Your task to perform on an android device: Search for Mexican restaurants on Maps Image 0: 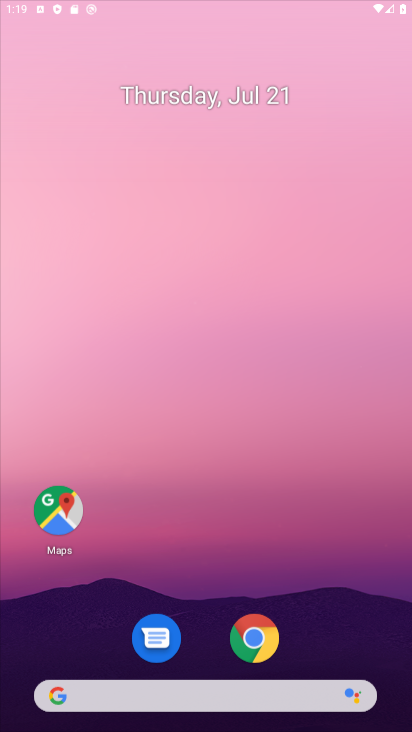
Step 0: click (137, 204)
Your task to perform on an android device: Search for Mexican restaurants on Maps Image 1: 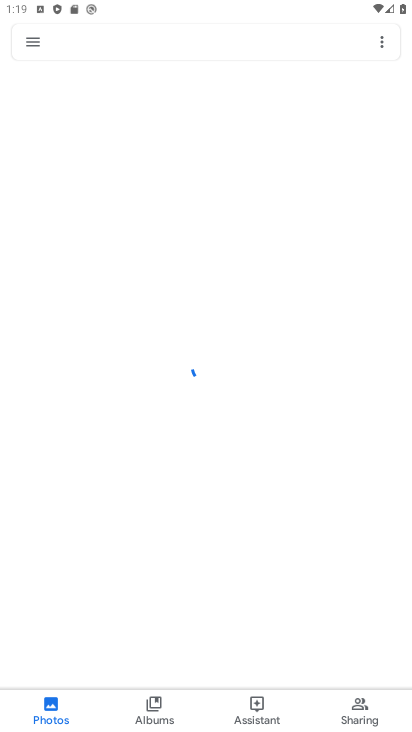
Step 1: press home button
Your task to perform on an android device: Search for Mexican restaurants on Maps Image 2: 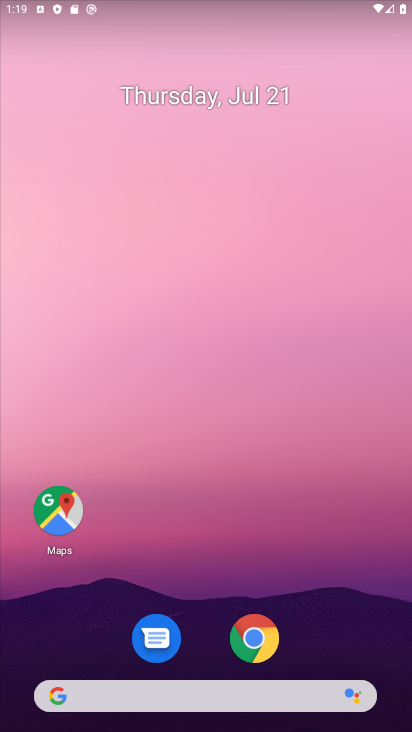
Step 2: click (73, 510)
Your task to perform on an android device: Search for Mexican restaurants on Maps Image 3: 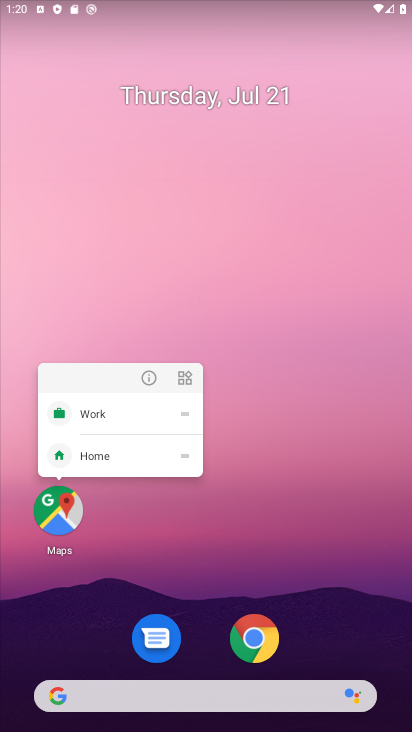
Step 3: click (73, 510)
Your task to perform on an android device: Search for Mexican restaurants on Maps Image 4: 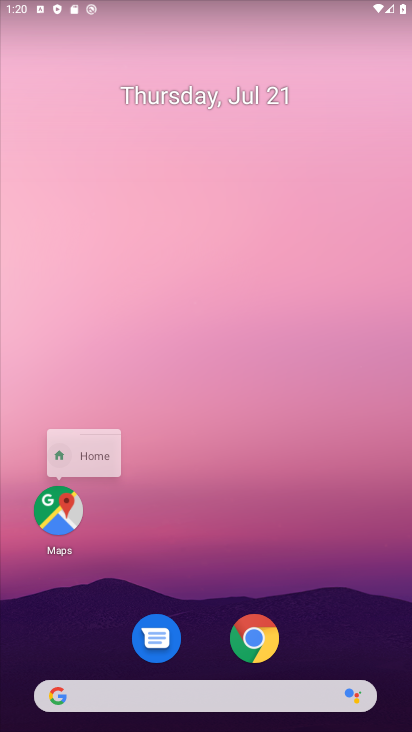
Step 4: click (73, 510)
Your task to perform on an android device: Search for Mexican restaurants on Maps Image 5: 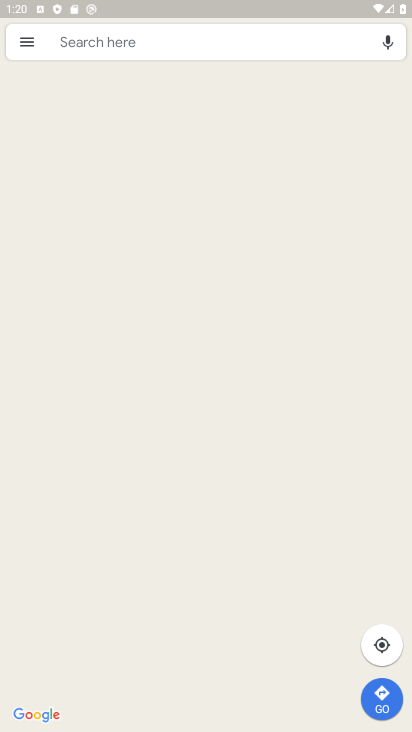
Step 5: click (161, 46)
Your task to perform on an android device: Search for Mexican restaurants on Maps Image 6: 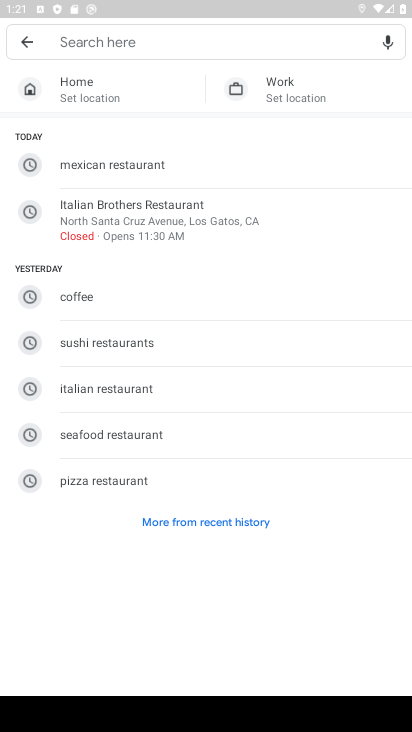
Step 6: type "mexican"
Your task to perform on an android device: Search for Mexican restaurants on Maps Image 7: 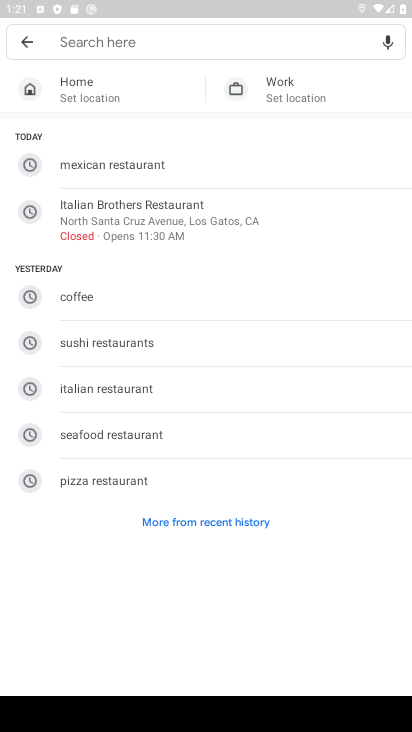
Step 7: click (183, 174)
Your task to perform on an android device: Search for Mexican restaurants on Maps Image 8: 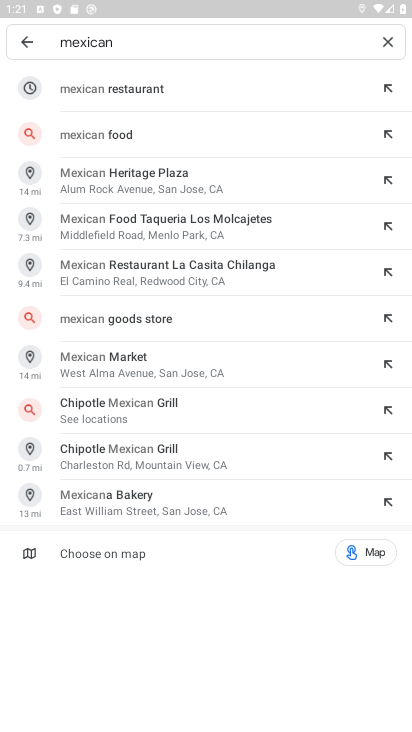
Step 8: click (207, 78)
Your task to perform on an android device: Search for Mexican restaurants on Maps Image 9: 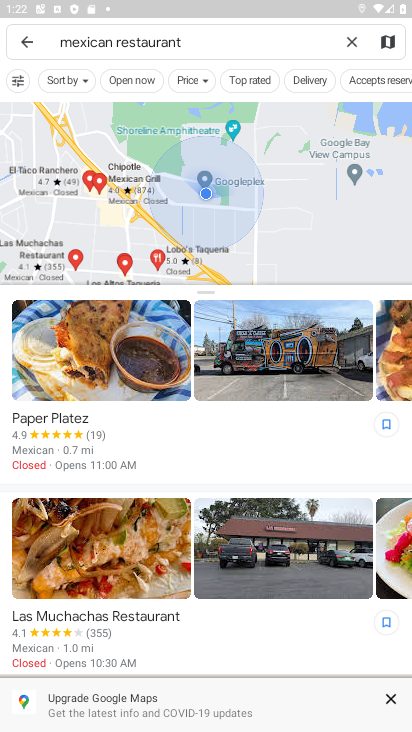
Step 9: task complete